Your task to perform on an android device: set default search engine in the chrome app Image 0: 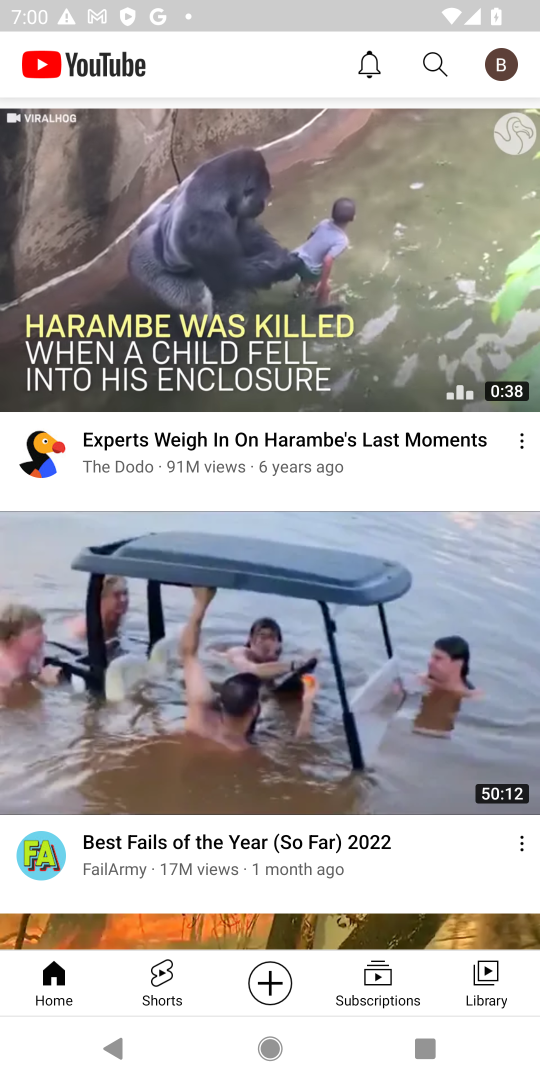
Step 0: press home button
Your task to perform on an android device: set default search engine in the chrome app Image 1: 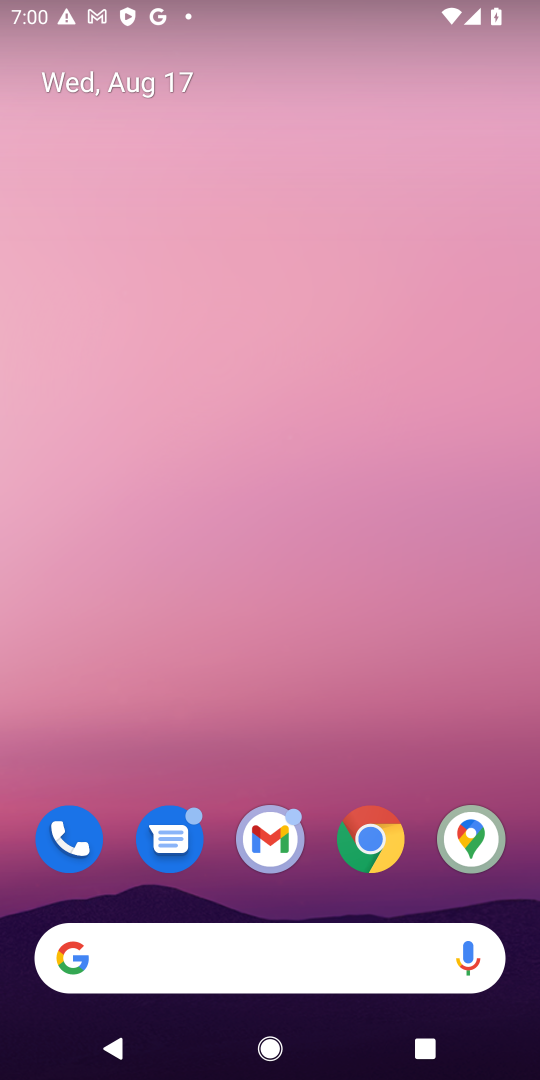
Step 1: click (370, 866)
Your task to perform on an android device: set default search engine in the chrome app Image 2: 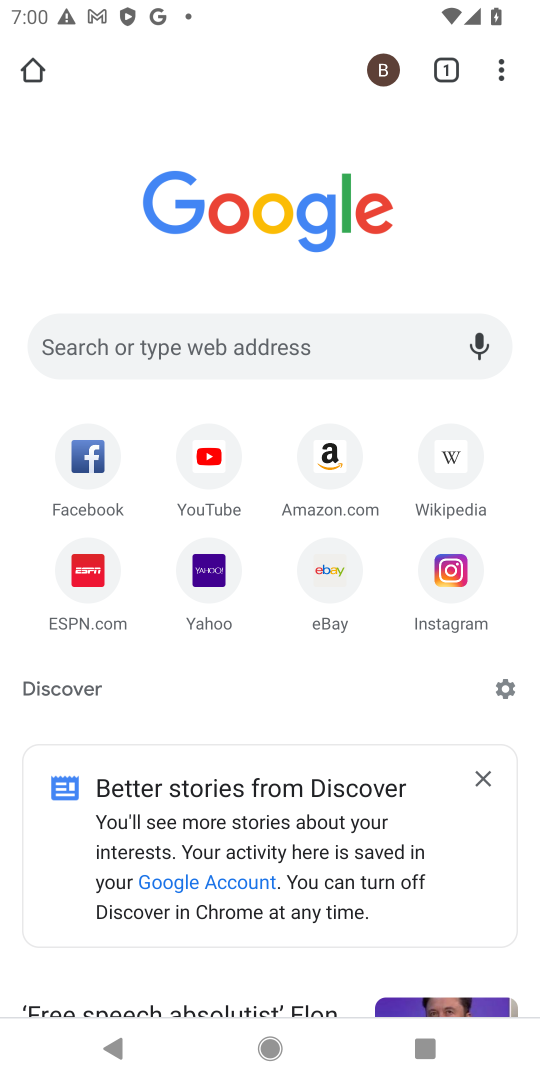
Step 2: click (498, 73)
Your task to perform on an android device: set default search engine in the chrome app Image 3: 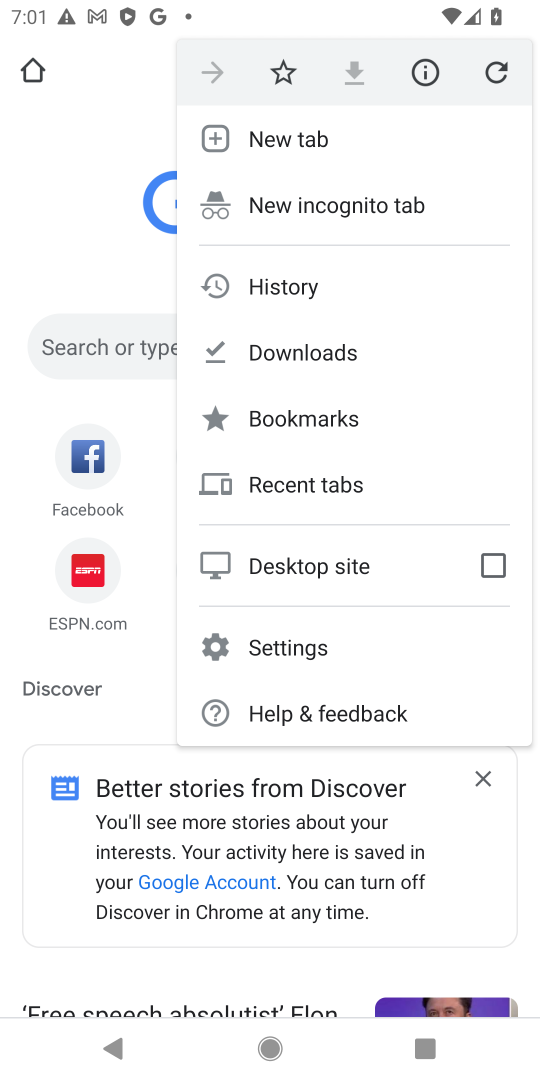
Step 3: click (277, 644)
Your task to perform on an android device: set default search engine in the chrome app Image 4: 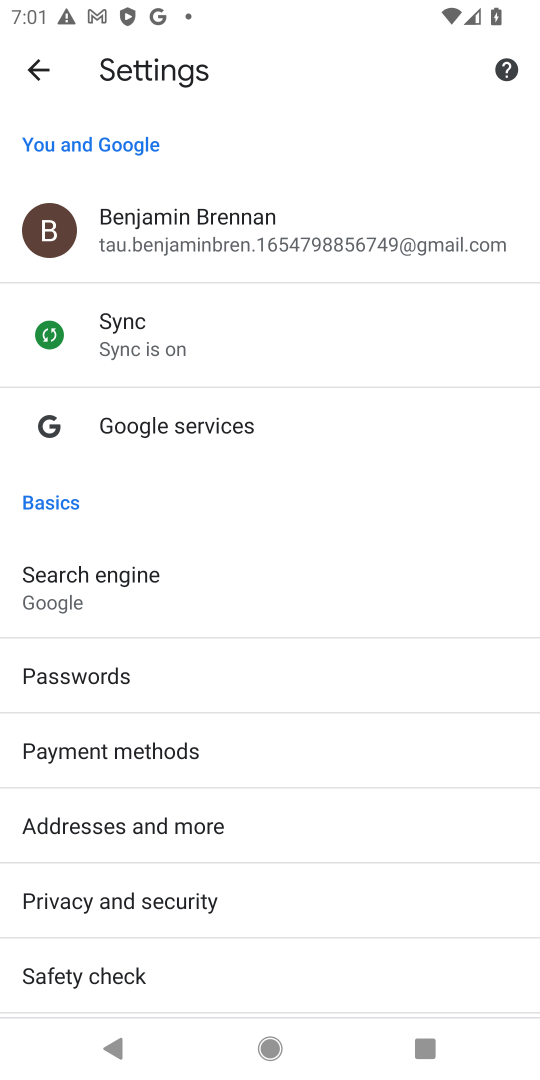
Step 4: click (92, 567)
Your task to perform on an android device: set default search engine in the chrome app Image 5: 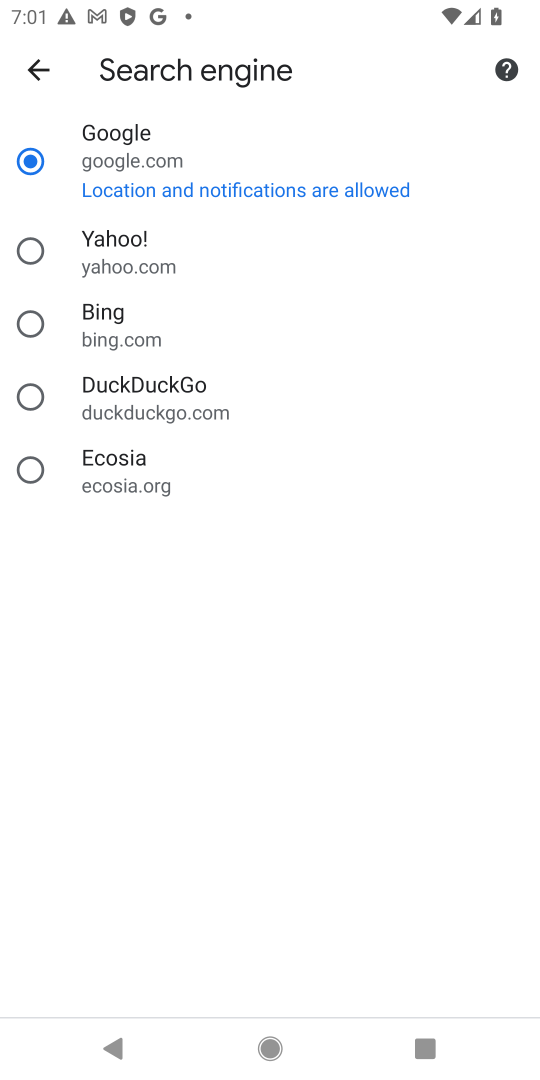
Step 5: click (92, 567)
Your task to perform on an android device: set default search engine in the chrome app Image 6: 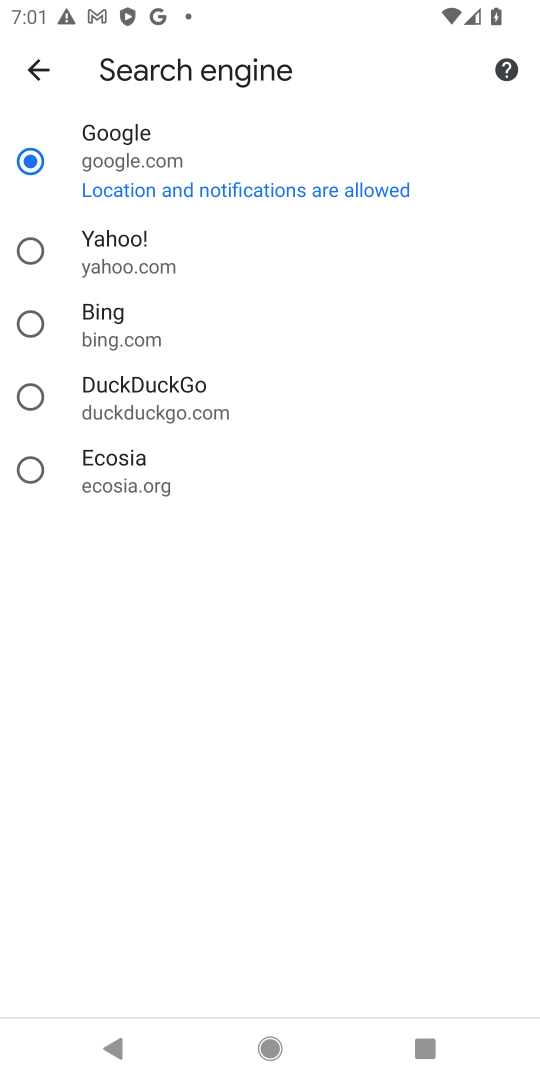
Step 6: click (28, 152)
Your task to perform on an android device: set default search engine in the chrome app Image 7: 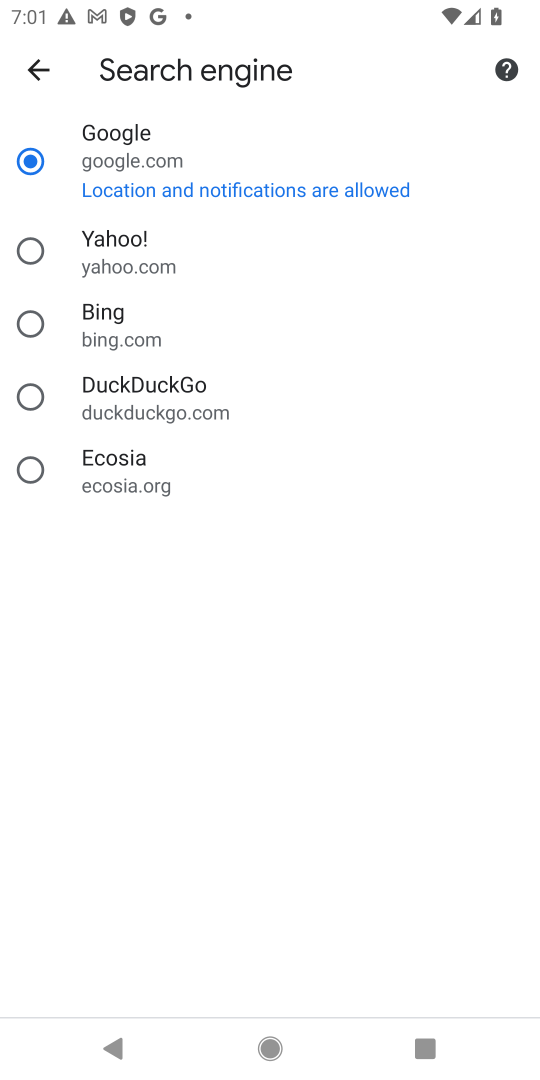
Step 7: task complete